Your task to perform on an android device: turn off airplane mode Image 0: 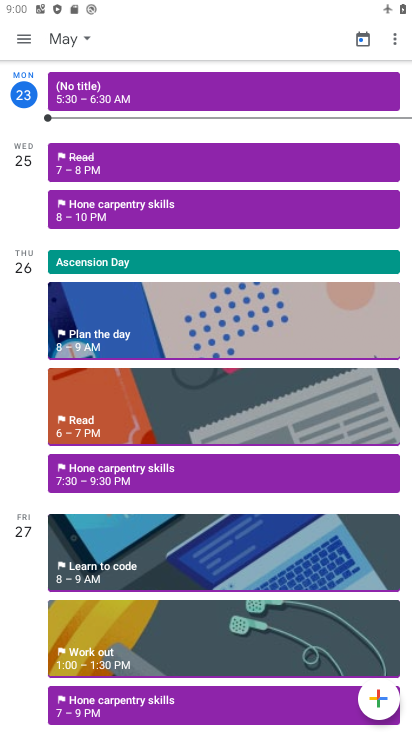
Step 0: press home button
Your task to perform on an android device: turn off airplane mode Image 1: 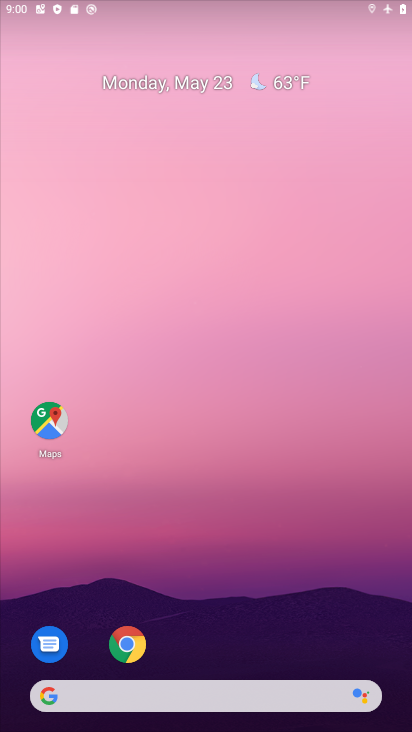
Step 1: drag from (239, 6) to (208, 723)
Your task to perform on an android device: turn off airplane mode Image 2: 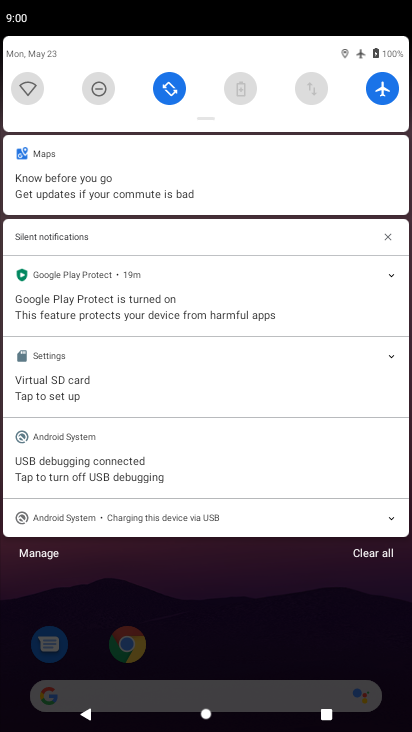
Step 2: click (386, 86)
Your task to perform on an android device: turn off airplane mode Image 3: 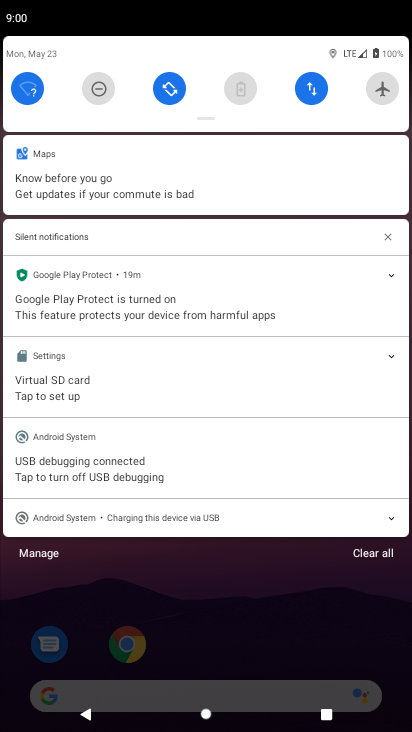
Step 3: task complete